Your task to perform on an android device: Toggle the flashlight Image 0: 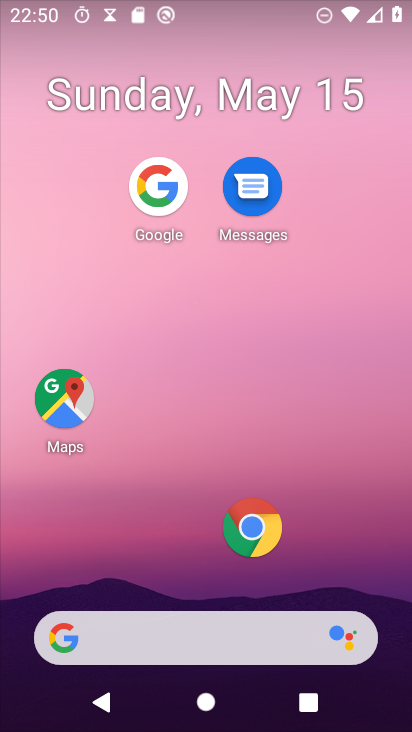
Step 0: drag from (233, 19) to (203, 380)
Your task to perform on an android device: Toggle the flashlight Image 1: 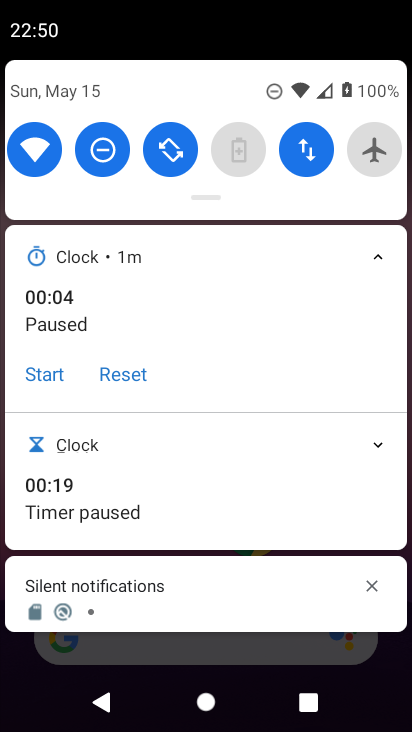
Step 1: task complete